Your task to perform on an android device: turn off improve location accuracy Image 0: 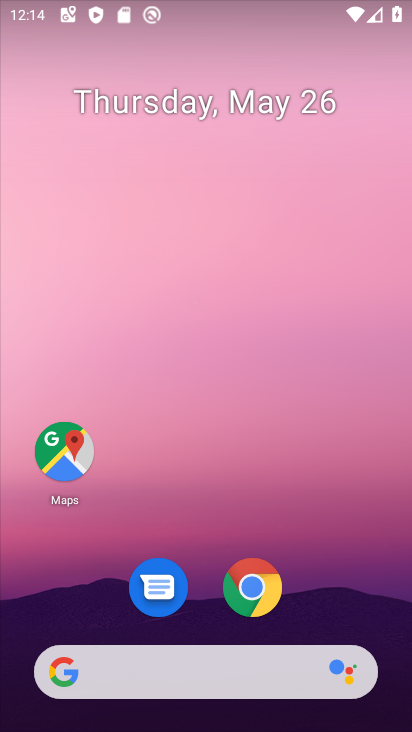
Step 0: press home button
Your task to perform on an android device: turn off improve location accuracy Image 1: 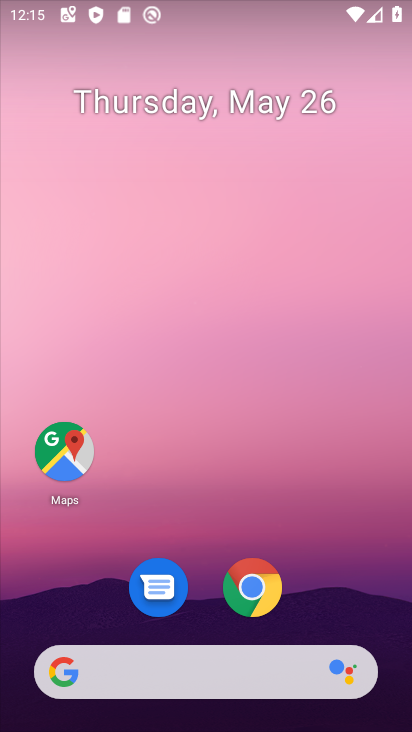
Step 1: drag from (206, 616) to (17, 62)
Your task to perform on an android device: turn off improve location accuracy Image 2: 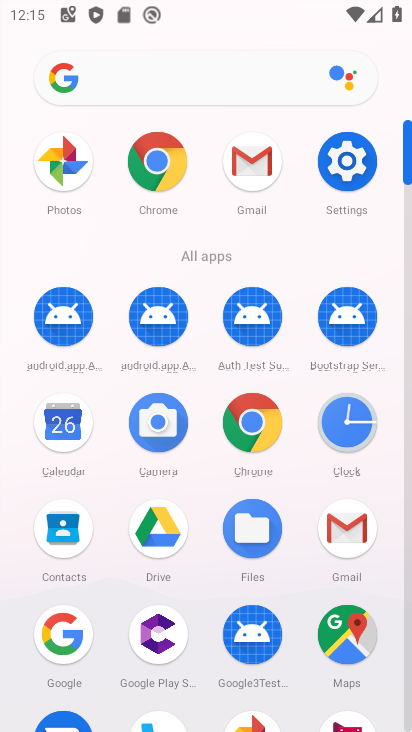
Step 2: click (348, 159)
Your task to perform on an android device: turn off improve location accuracy Image 3: 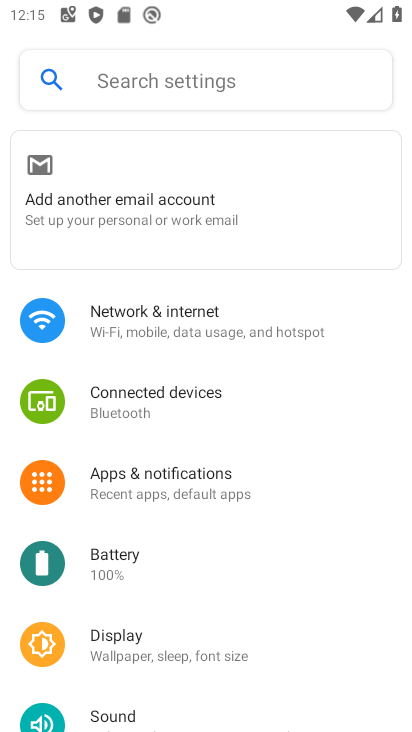
Step 3: drag from (181, 680) to (202, 205)
Your task to perform on an android device: turn off improve location accuracy Image 4: 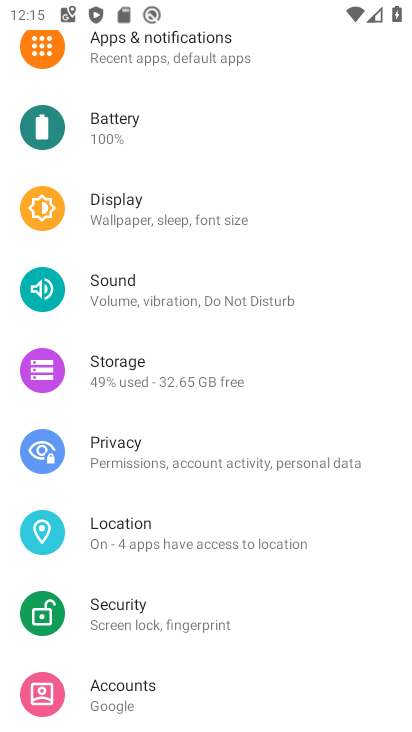
Step 4: click (166, 523)
Your task to perform on an android device: turn off improve location accuracy Image 5: 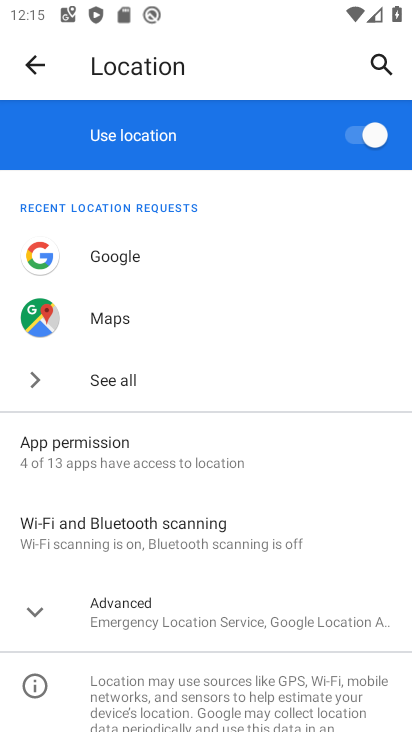
Step 5: click (38, 607)
Your task to perform on an android device: turn off improve location accuracy Image 6: 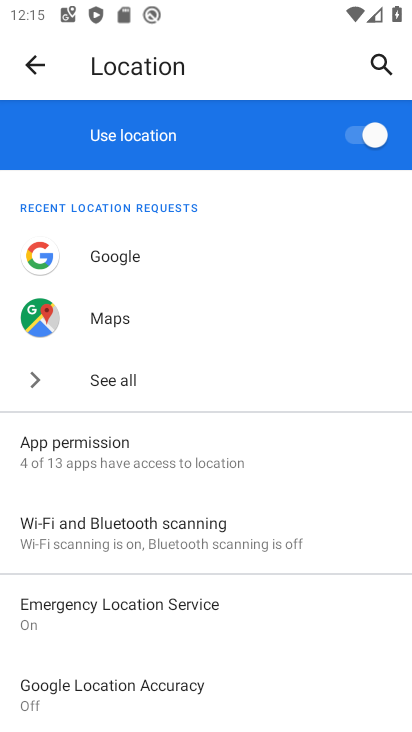
Step 6: click (81, 695)
Your task to perform on an android device: turn off improve location accuracy Image 7: 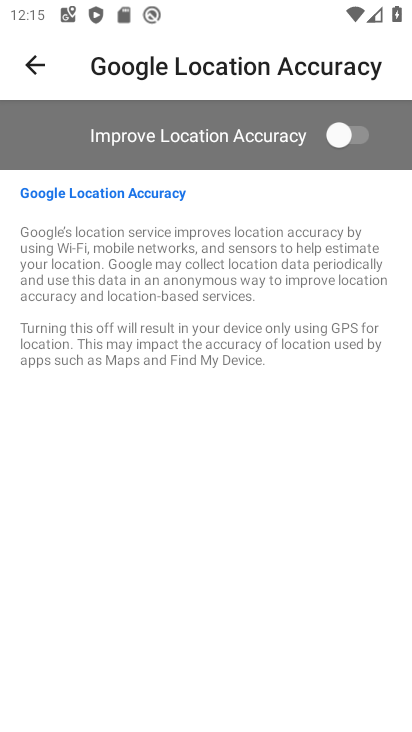
Step 7: task complete